Your task to perform on an android device: Open the calendar app, open the side menu, and click the "Day" option Image 0: 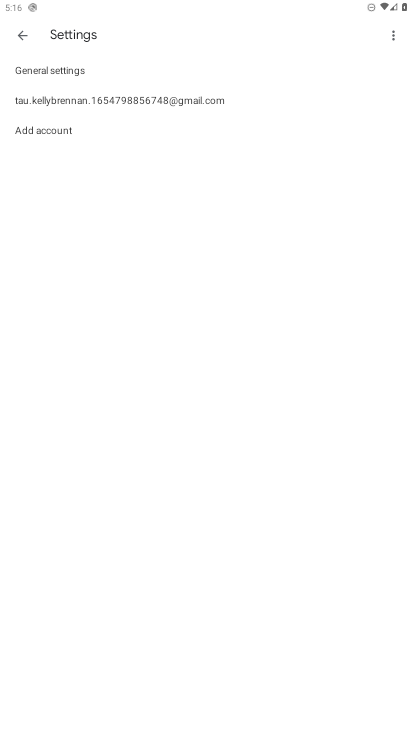
Step 0: press home button
Your task to perform on an android device: Open the calendar app, open the side menu, and click the "Day" option Image 1: 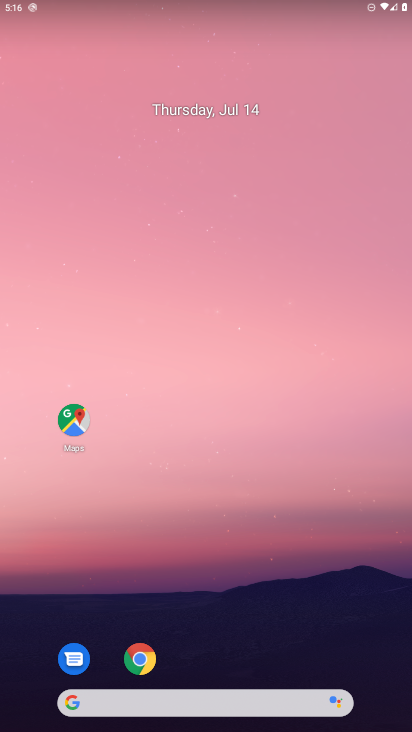
Step 1: drag from (228, 657) to (247, 93)
Your task to perform on an android device: Open the calendar app, open the side menu, and click the "Day" option Image 2: 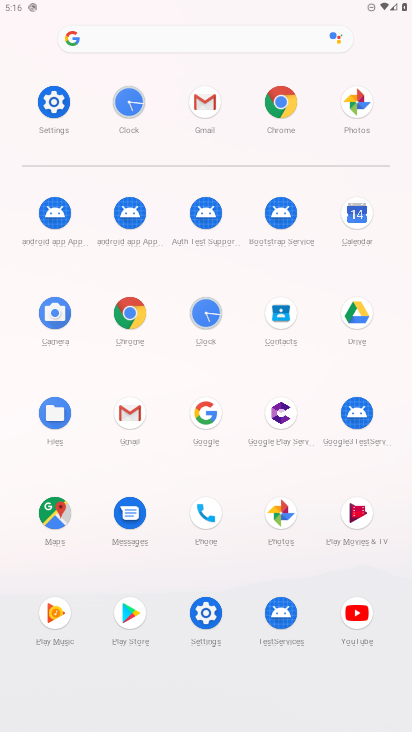
Step 2: click (358, 211)
Your task to perform on an android device: Open the calendar app, open the side menu, and click the "Day" option Image 3: 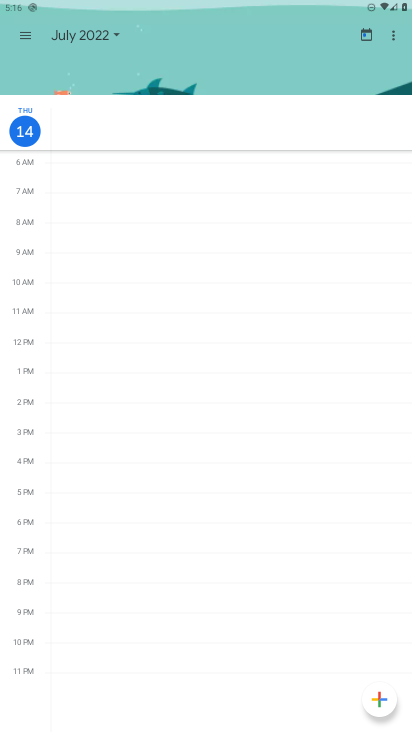
Step 3: click (20, 26)
Your task to perform on an android device: Open the calendar app, open the side menu, and click the "Day" option Image 4: 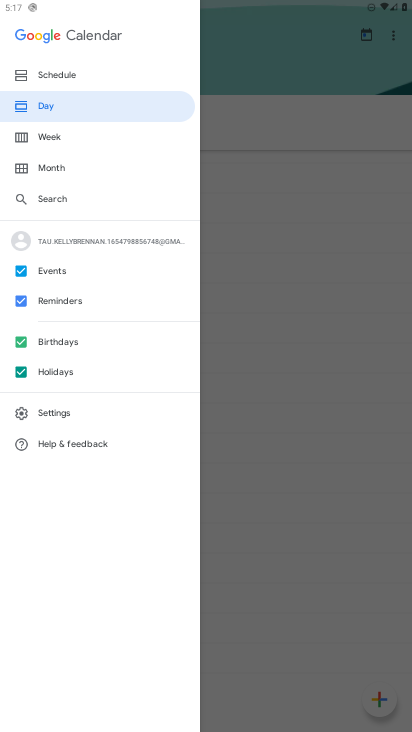
Step 4: click (57, 99)
Your task to perform on an android device: Open the calendar app, open the side menu, and click the "Day" option Image 5: 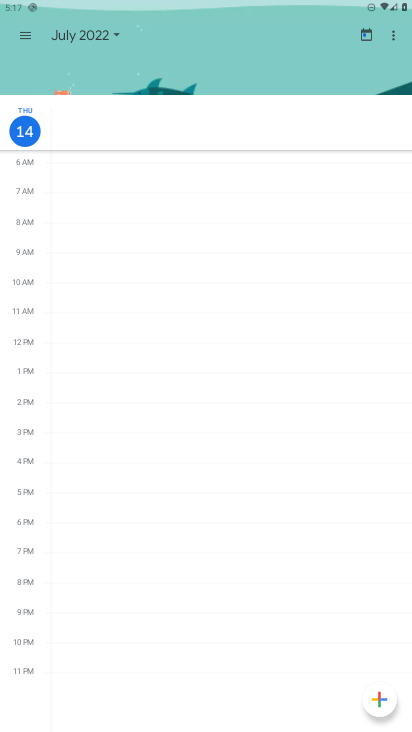
Step 5: task complete